Your task to perform on an android device: What's the weather going to be this weekend? Image 0: 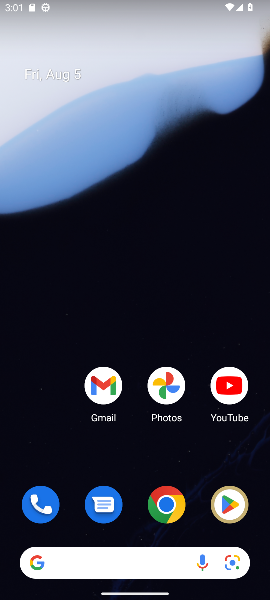
Step 0: click (91, 568)
Your task to perform on an android device: What's the weather going to be this weekend? Image 1: 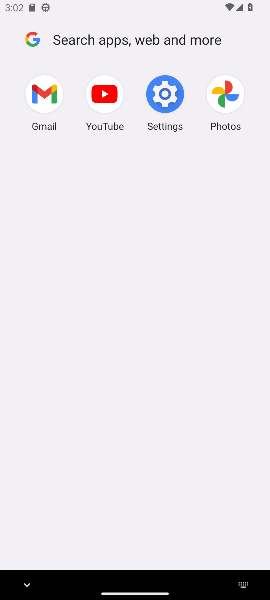
Step 1: press home button
Your task to perform on an android device: What's the weather going to be this weekend? Image 2: 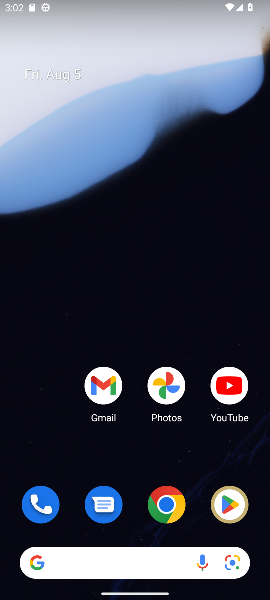
Step 2: click (66, 571)
Your task to perform on an android device: What's the weather going to be this weekend? Image 3: 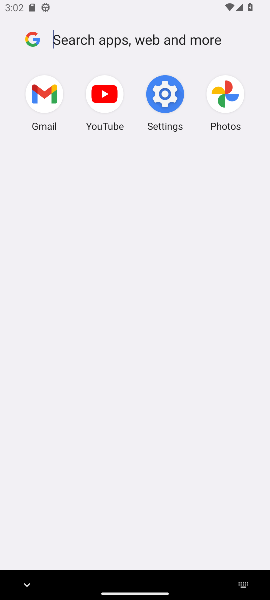
Step 3: type "What's the weather going to be this weekend?"
Your task to perform on an android device: What's the weather going to be this weekend? Image 4: 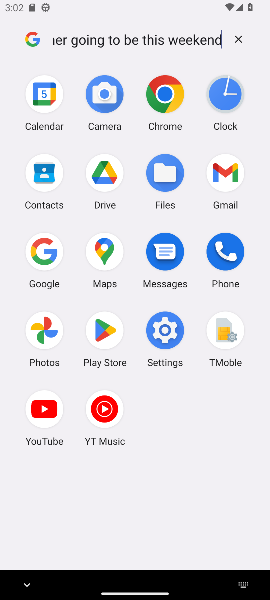
Step 4: type ""
Your task to perform on an android device: What's the weather going to be this weekend? Image 5: 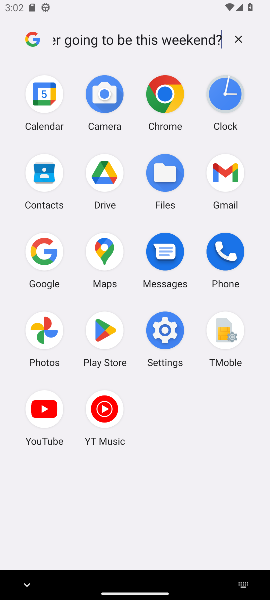
Step 5: type ""
Your task to perform on an android device: What's the weather going to be this weekend? Image 6: 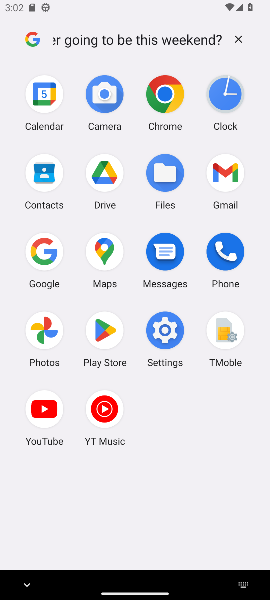
Step 6: type ""
Your task to perform on an android device: What's the weather going to be this weekend? Image 7: 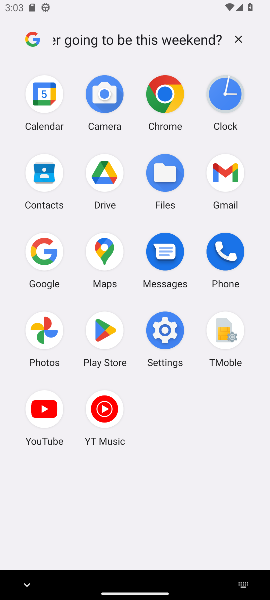
Step 7: task complete